Your task to perform on an android device: allow cookies in the chrome app Image 0: 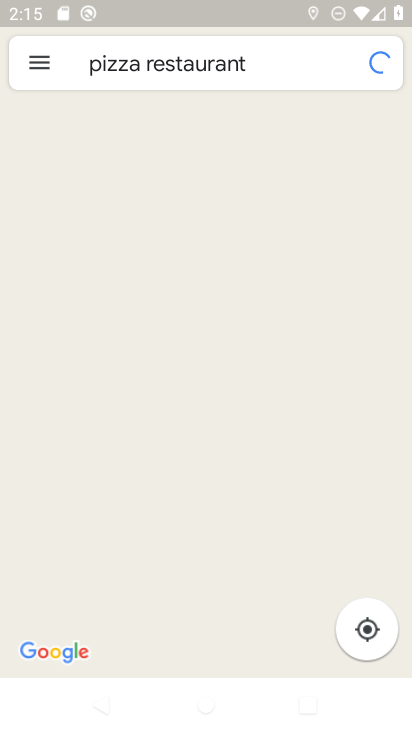
Step 0: press home button
Your task to perform on an android device: allow cookies in the chrome app Image 1: 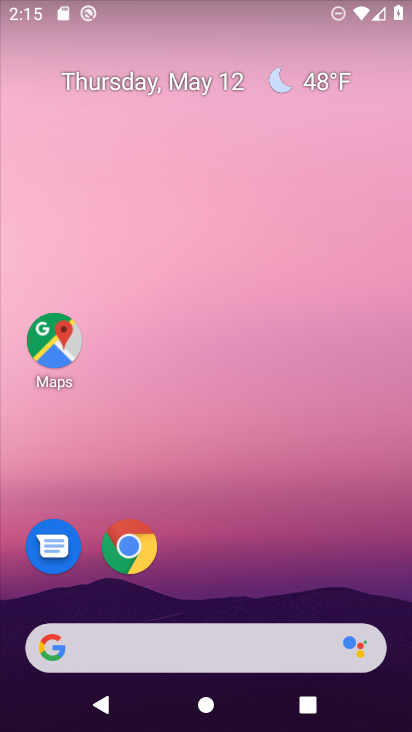
Step 1: drag from (177, 648) to (107, 195)
Your task to perform on an android device: allow cookies in the chrome app Image 2: 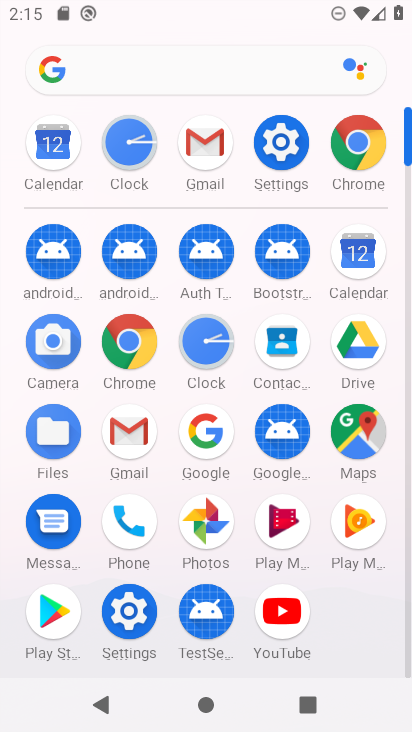
Step 2: click (333, 154)
Your task to perform on an android device: allow cookies in the chrome app Image 3: 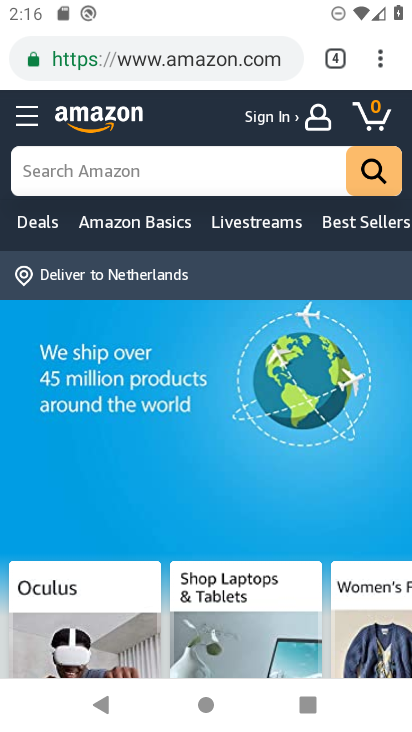
Step 3: click (377, 76)
Your task to perform on an android device: allow cookies in the chrome app Image 4: 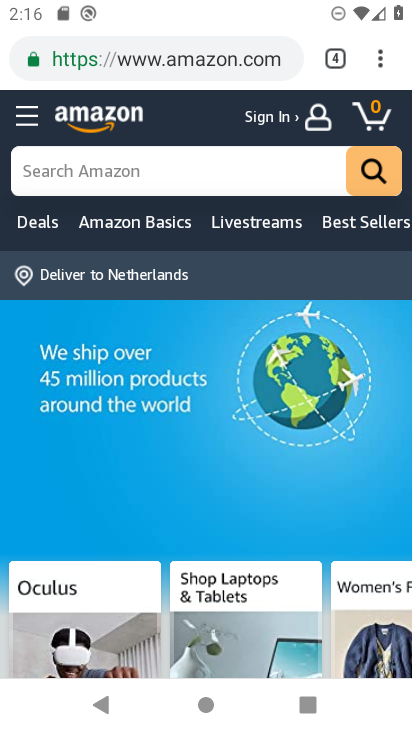
Step 4: click (372, 66)
Your task to perform on an android device: allow cookies in the chrome app Image 5: 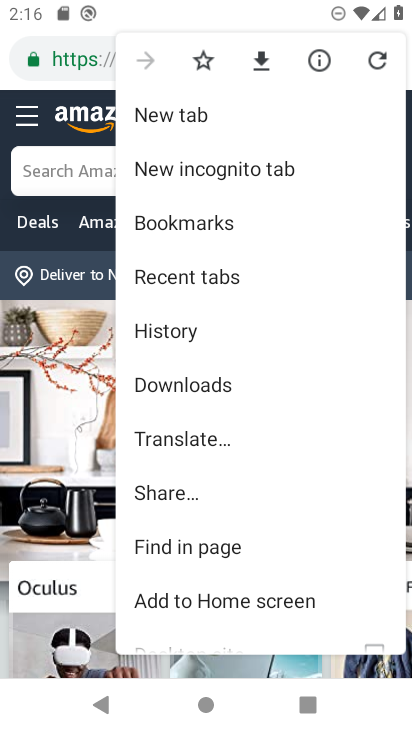
Step 5: drag from (200, 596) to (235, 456)
Your task to perform on an android device: allow cookies in the chrome app Image 6: 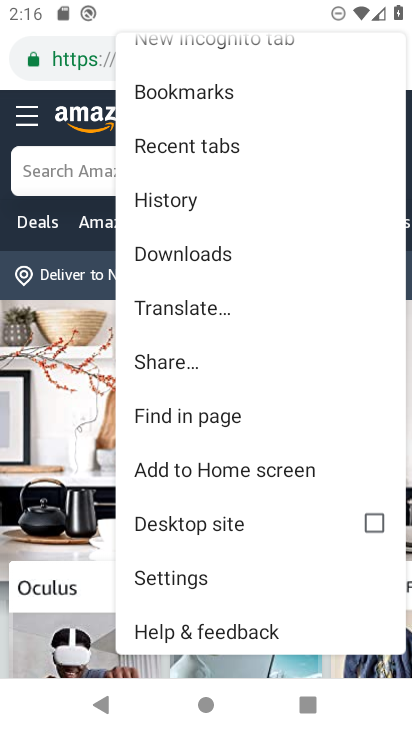
Step 6: click (186, 572)
Your task to perform on an android device: allow cookies in the chrome app Image 7: 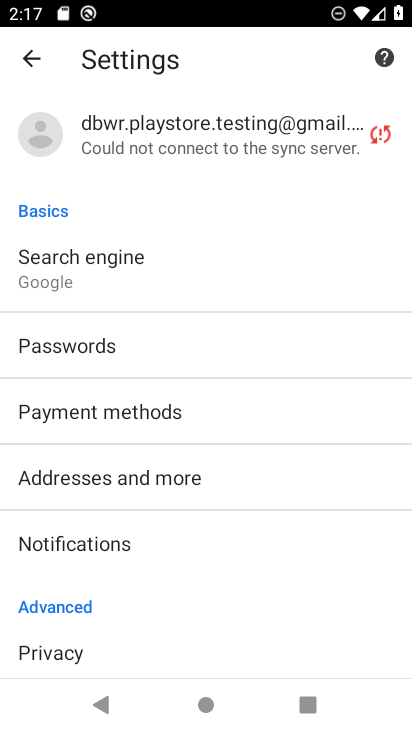
Step 7: drag from (106, 580) to (137, 279)
Your task to perform on an android device: allow cookies in the chrome app Image 8: 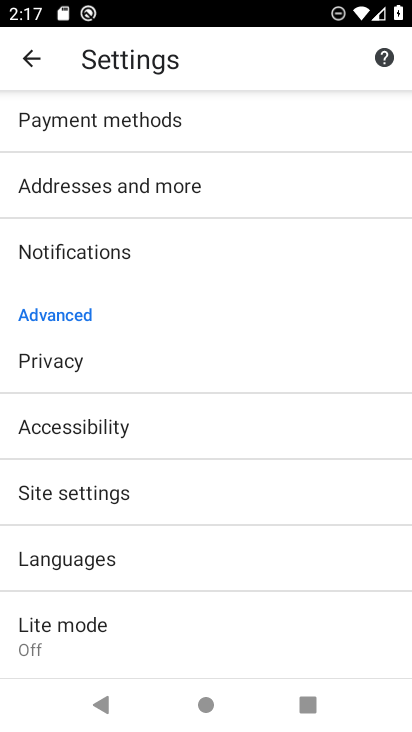
Step 8: click (124, 499)
Your task to perform on an android device: allow cookies in the chrome app Image 9: 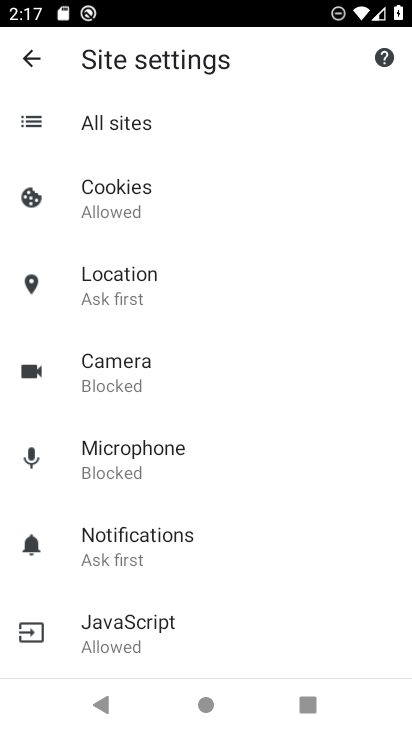
Step 9: click (145, 216)
Your task to perform on an android device: allow cookies in the chrome app Image 10: 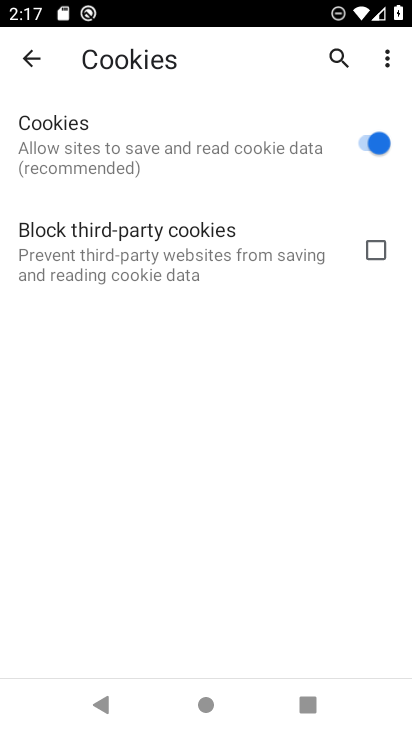
Step 10: click (269, 142)
Your task to perform on an android device: allow cookies in the chrome app Image 11: 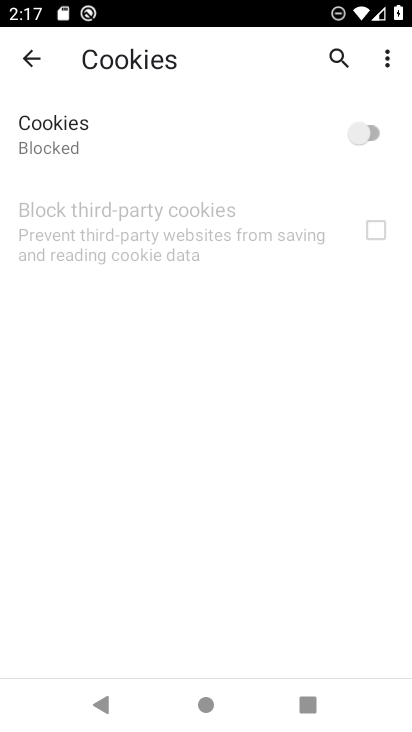
Step 11: click (268, 143)
Your task to perform on an android device: allow cookies in the chrome app Image 12: 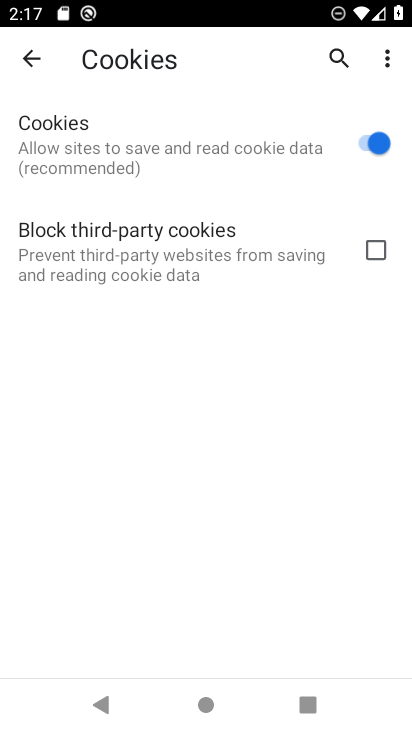
Step 12: task complete